Your task to perform on an android device: change text size in settings app Image 0: 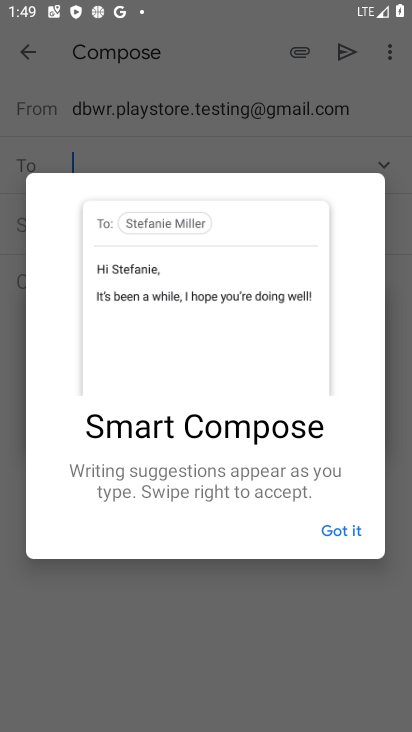
Step 0: press home button
Your task to perform on an android device: change text size in settings app Image 1: 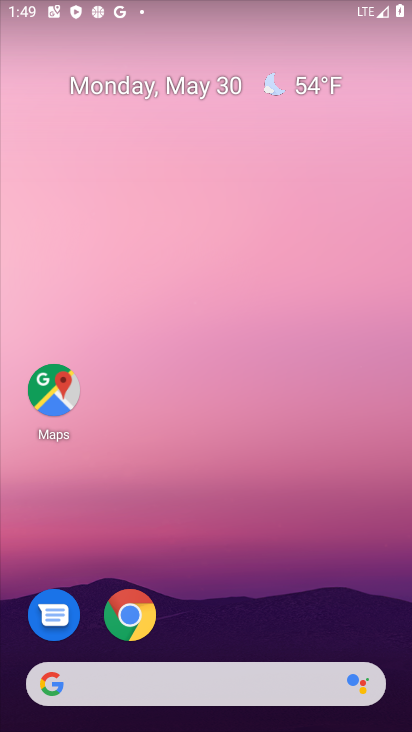
Step 1: drag from (327, 619) to (248, 39)
Your task to perform on an android device: change text size in settings app Image 2: 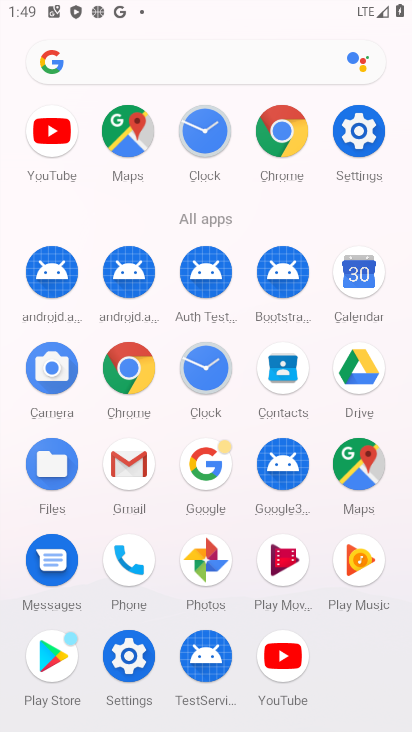
Step 2: click (350, 118)
Your task to perform on an android device: change text size in settings app Image 3: 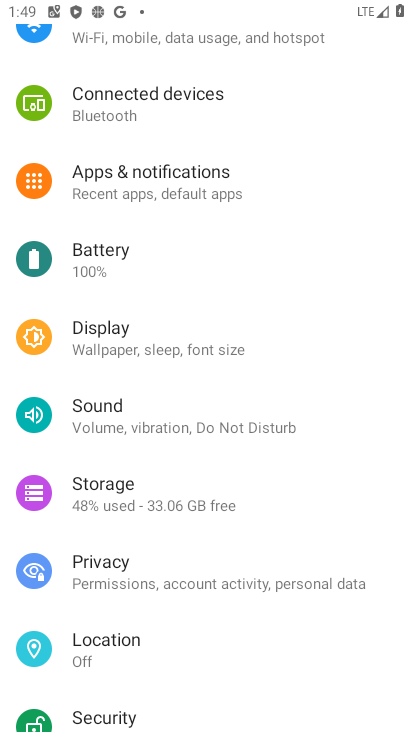
Step 3: drag from (112, 505) to (59, 225)
Your task to perform on an android device: change text size in settings app Image 4: 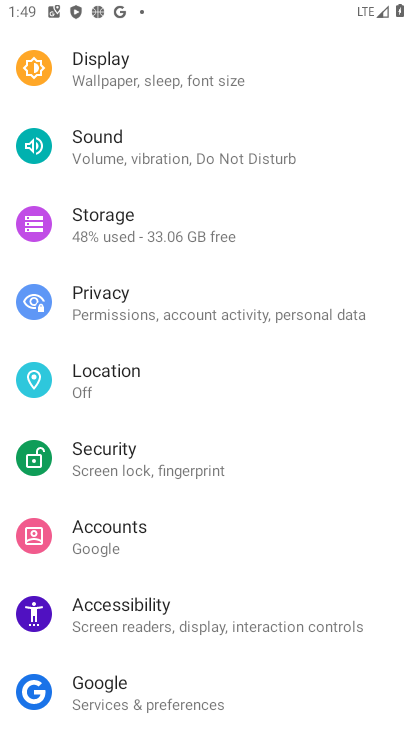
Step 4: drag from (131, 157) to (125, 528)
Your task to perform on an android device: change text size in settings app Image 5: 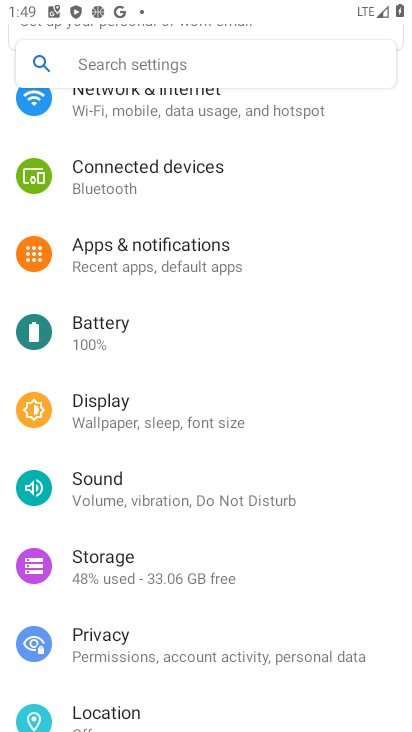
Step 5: click (80, 408)
Your task to perform on an android device: change text size in settings app Image 6: 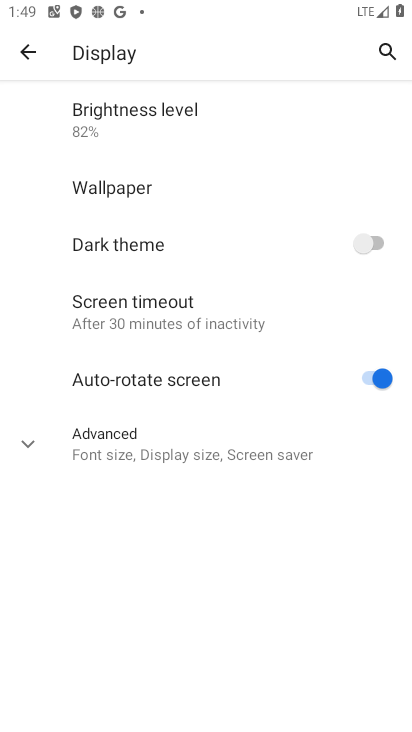
Step 6: click (213, 444)
Your task to perform on an android device: change text size in settings app Image 7: 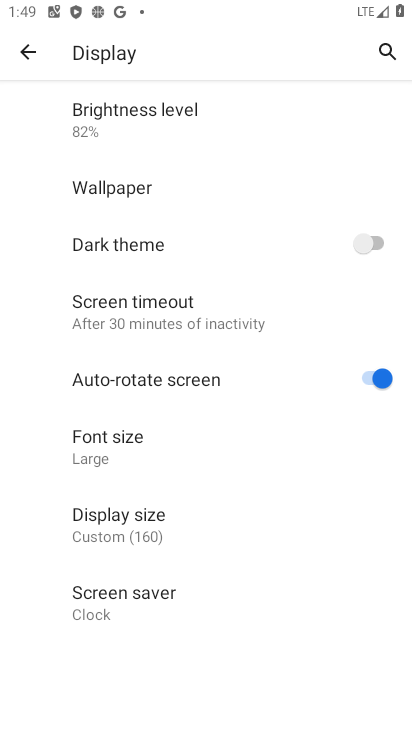
Step 7: click (213, 443)
Your task to perform on an android device: change text size in settings app Image 8: 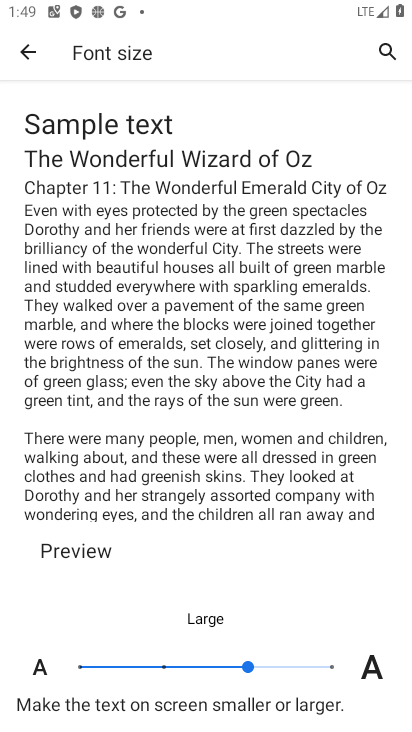
Step 8: task complete